Your task to perform on an android device: Show me productivity apps on the Play Store Image 0: 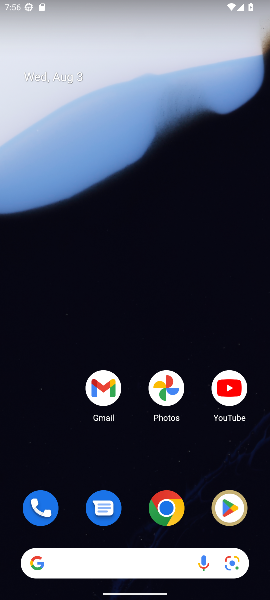
Step 0: drag from (99, 533) to (184, 22)
Your task to perform on an android device: Show me productivity apps on the Play Store Image 1: 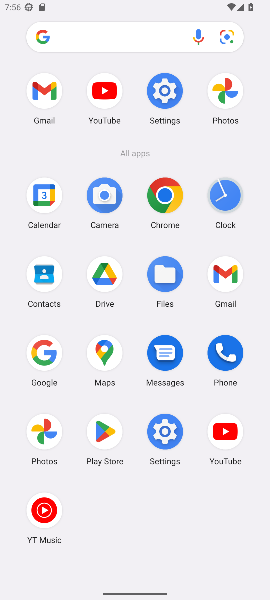
Step 1: click (112, 437)
Your task to perform on an android device: Show me productivity apps on the Play Store Image 2: 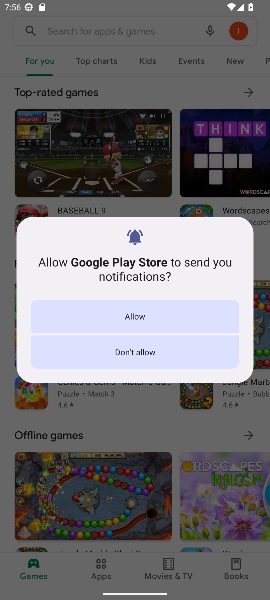
Step 2: click (132, 324)
Your task to perform on an android device: Show me productivity apps on the Play Store Image 3: 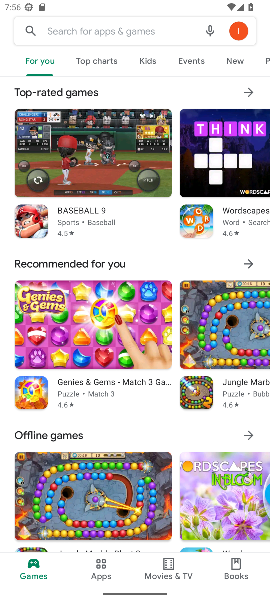
Step 3: click (85, 561)
Your task to perform on an android device: Show me productivity apps on the Play Store Image 4: 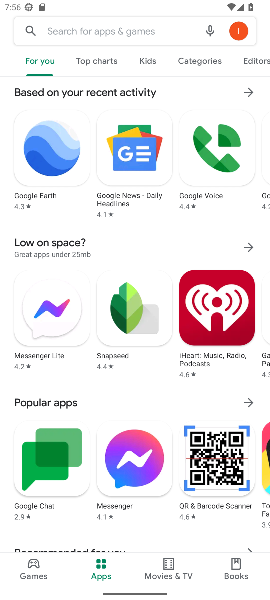
Step 4: click (192, 59)
Your task to perform on an android device: Show me productivity apps on the Play Store Image 5: 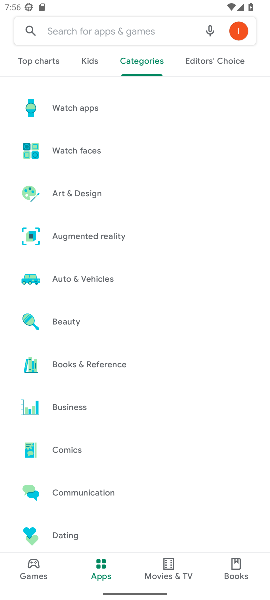
Step 5: drag from (166, 482) to (123, 66)
Your task to perform on an android device: Show me productivity apps on the Play Store Image 6: 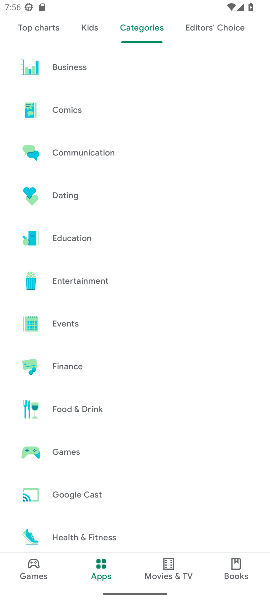
Step 6: drag from (88, 527) to (49, 26)
Your task to perform on an android device: Show me productivity apps on the Play Store Image 7: 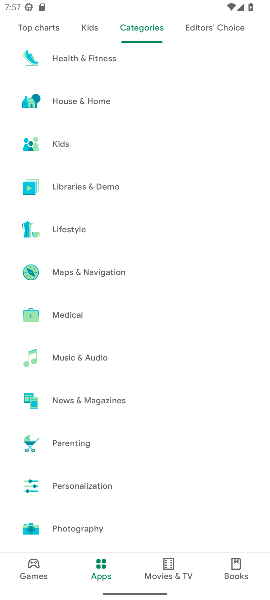
Step 7: drag from (85, 522) to (59, 158)
Your task to perform on an android device: Show me productivity apps on the Play Store Image 8: 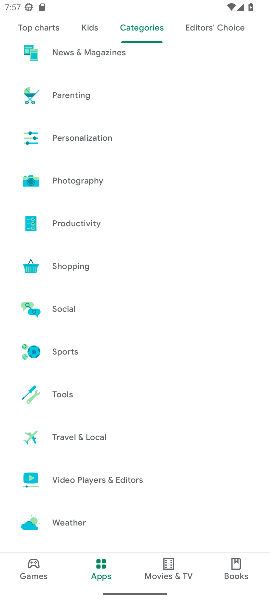
Step 8: click (83, 233)
Your task to perform on an android device: Show me productivity apps on the Play Store Image 9: 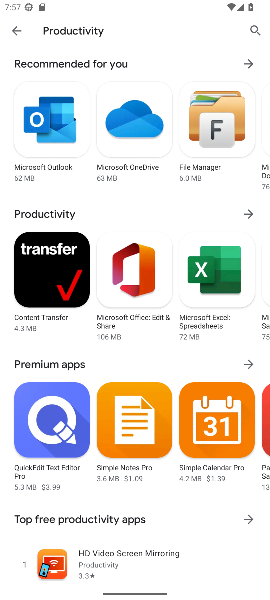
Step 9: task complete